Your task to perform on an android device: Search for the best value 4K TV on Best Buy Image 0: 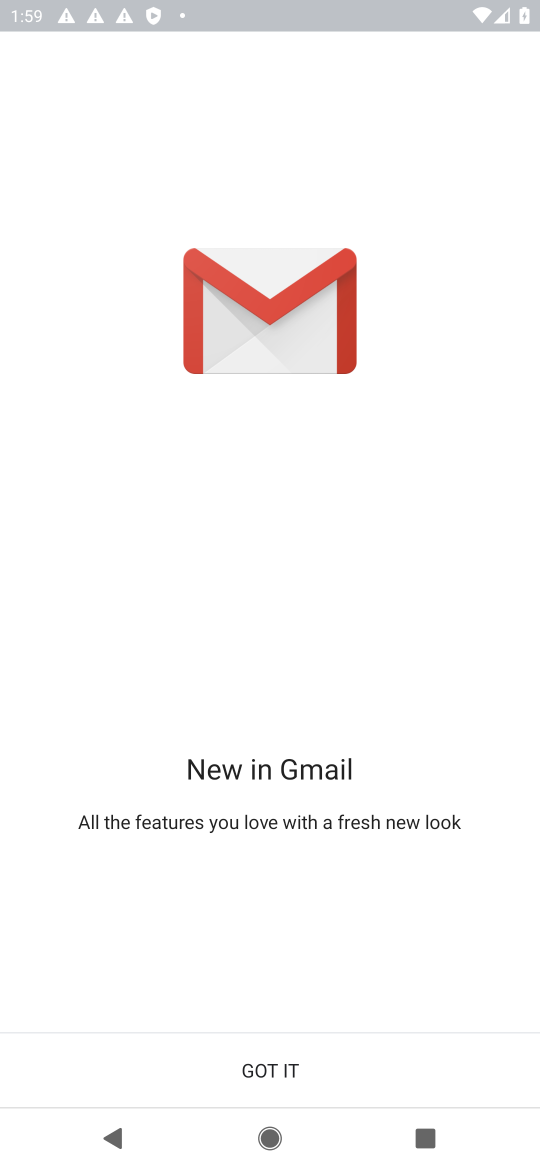
Step 0: click (356, 1056)
Your task to perform on an android device: Search for the best value 4K TV on Best Buy Image 1: 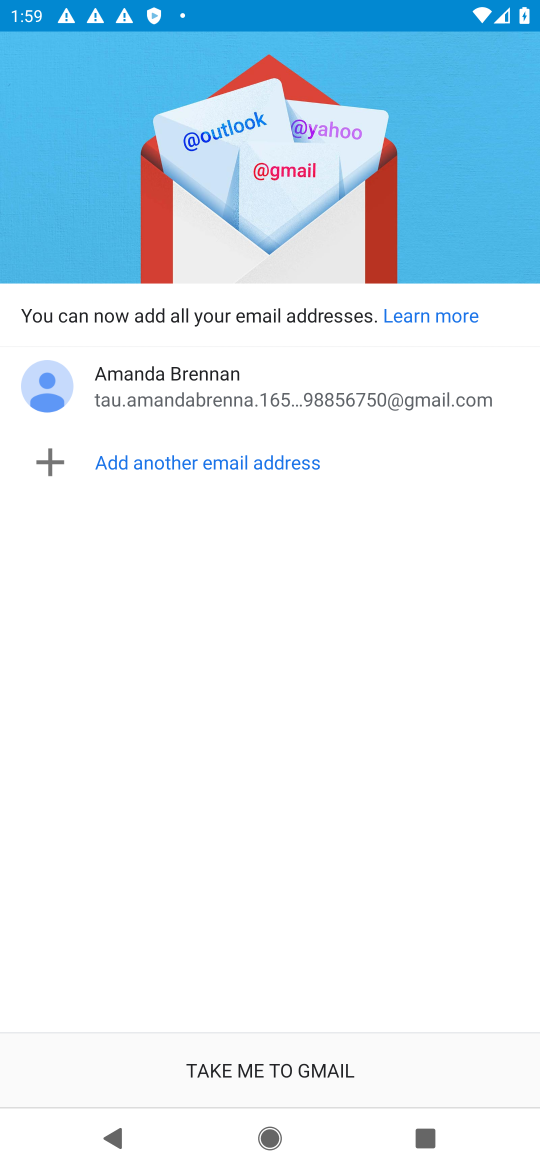
Step 1: press home button
Your task to perform on an android device: Search for the best value 4K TV on Best Buy Image 2: 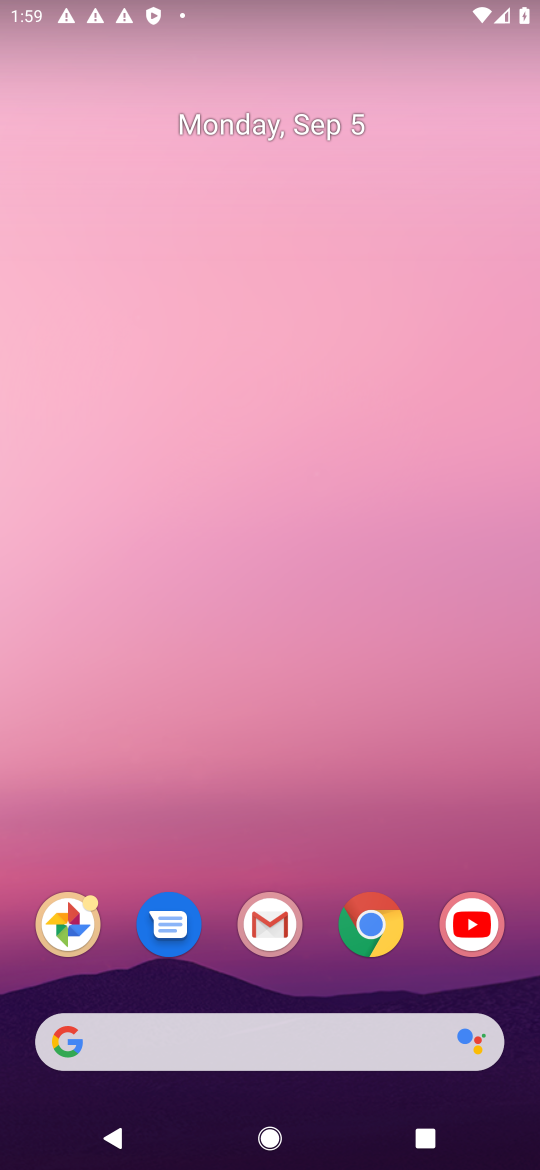
Step 2: click (379, 934)
Your task to perform on an android device: Search for the best value 4K TV on Best Buy Image 3: 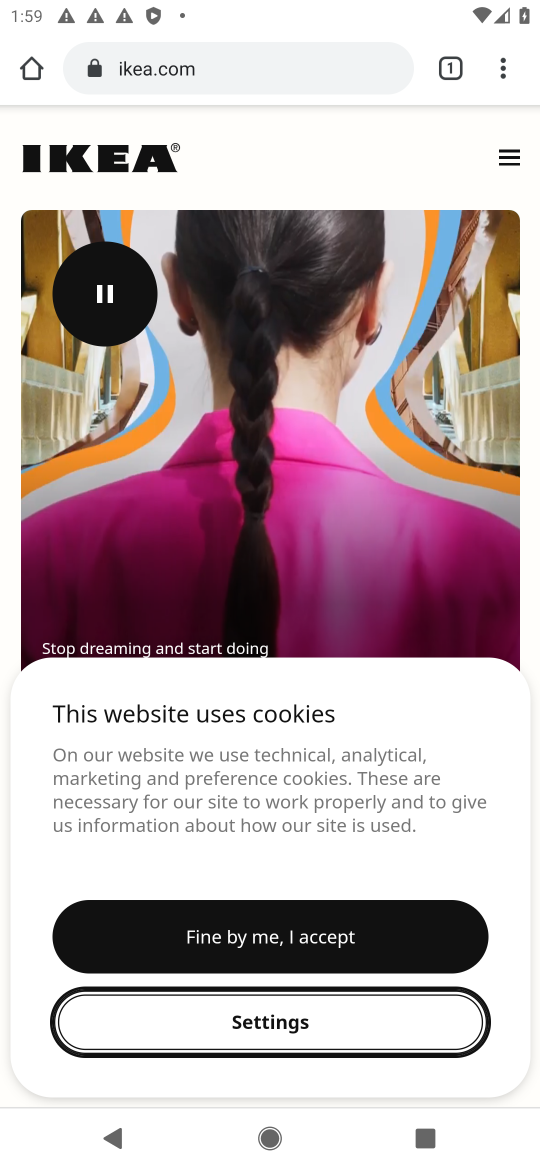
Step 3: click (311, 77)
Your task to perform on an android device: Search for the best value 4K TV on Best Buy Image 4: 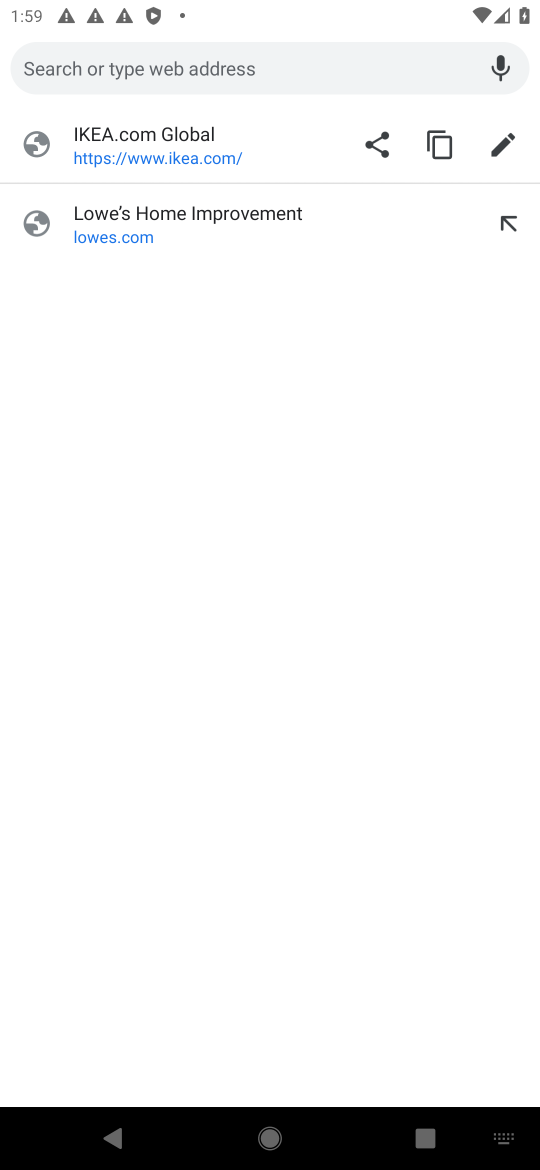
Step 4: type "best buy"
Your task to perform on an android device: Search for the best value 4K TV on Best Buy Image 5: 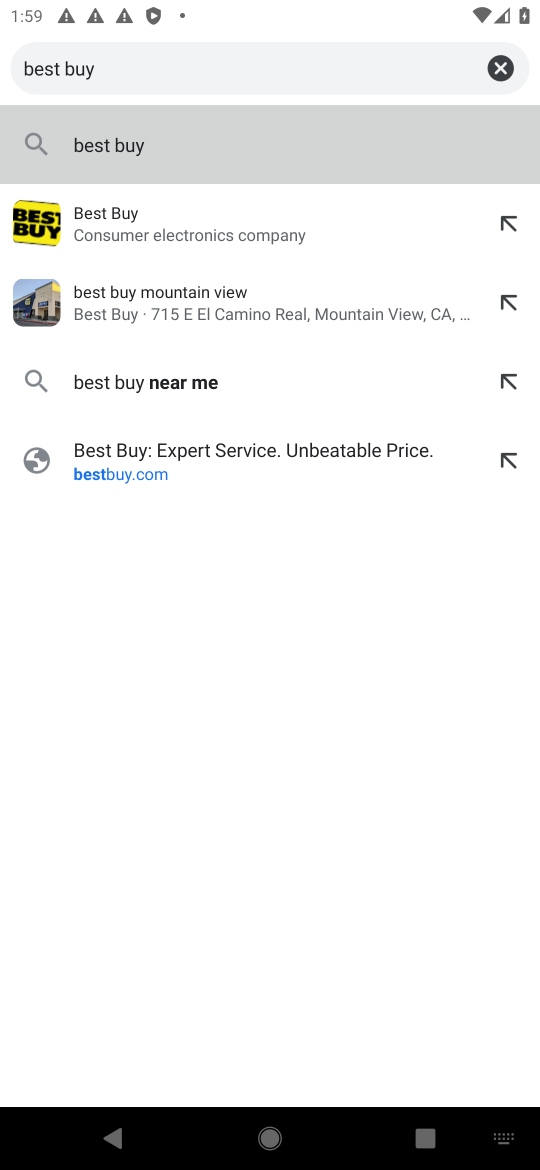
Step 5: click (39, 234)
Your task to perform on an android device: Search for the best value 4K TV on Best Buy Image 6: 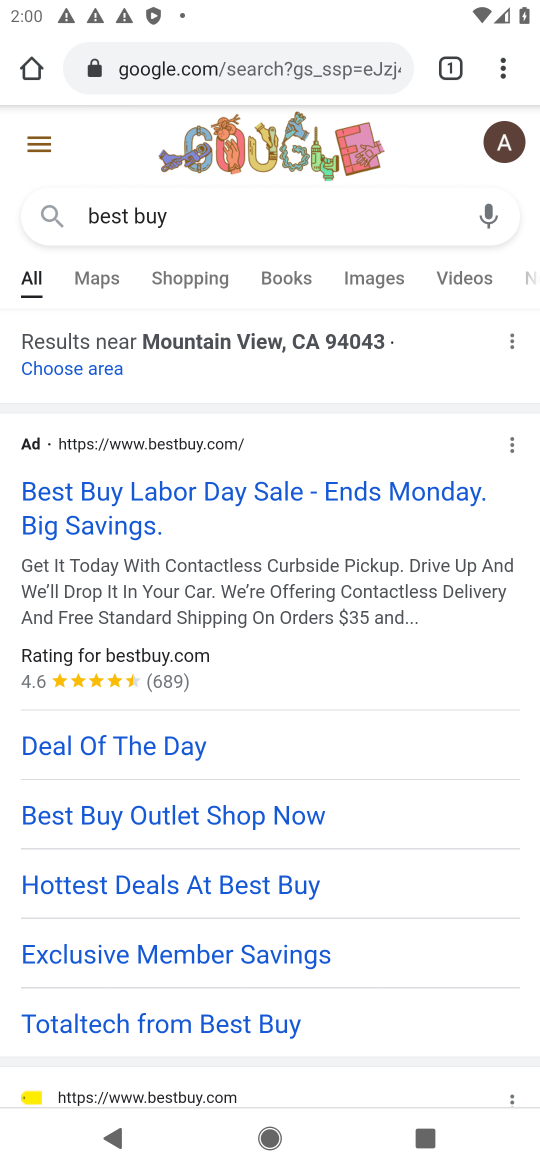
Step 6: click (364, 63)
Your task to perform on an android device: Search for the best value 4K TV on Best Buy Image 7: 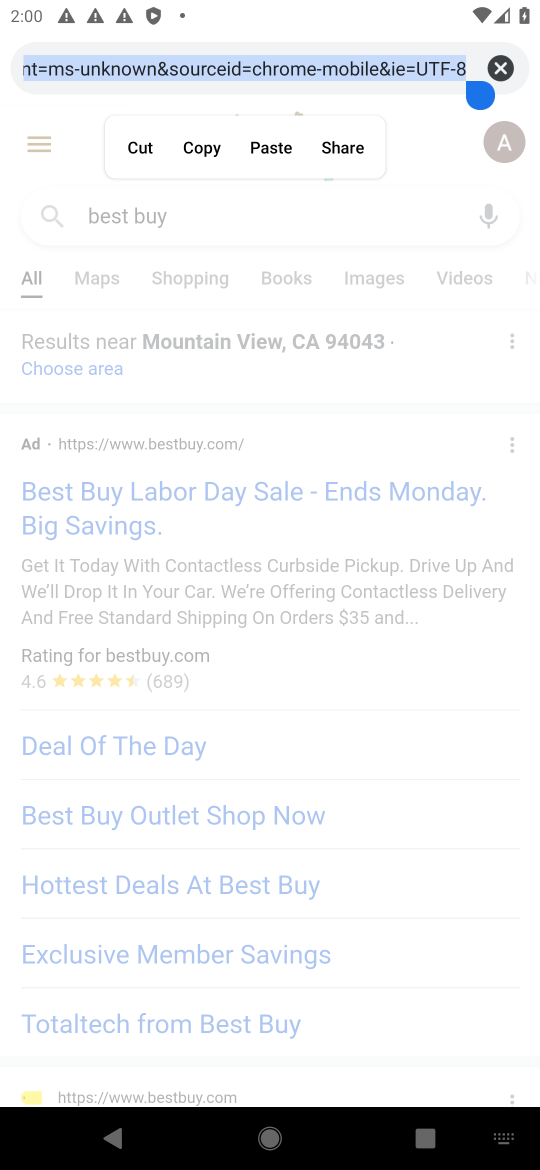
Step 7: type "best buy"
Your task to perform on an android device: Search for the best value 4K TV on Best Buy Image 8: 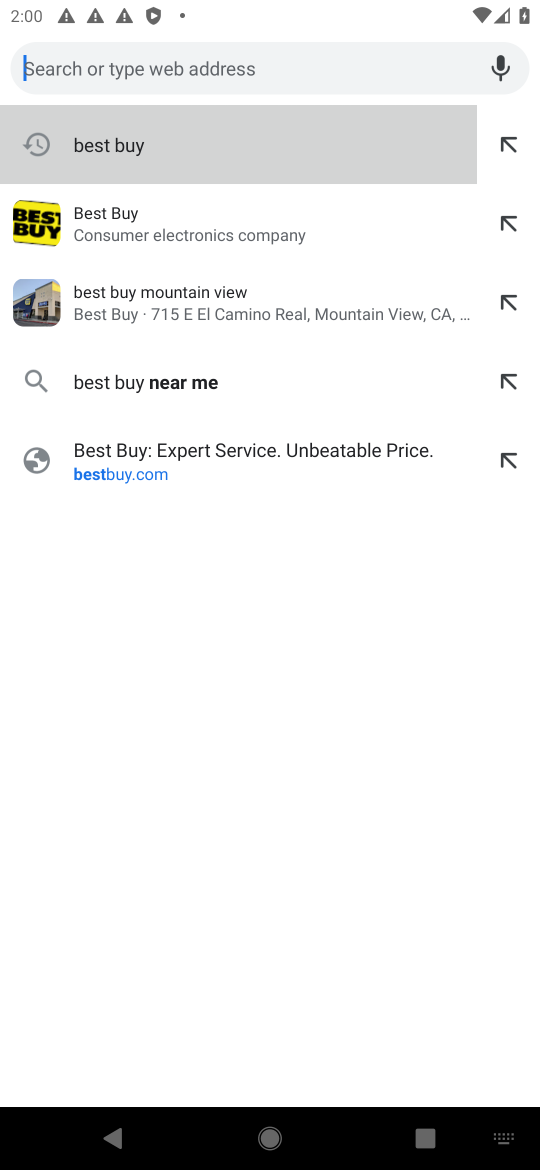
Step 8: click (58, 231)
Your task to perform on an android device: Search for the best value 4K TV on Best Buy Image 9: 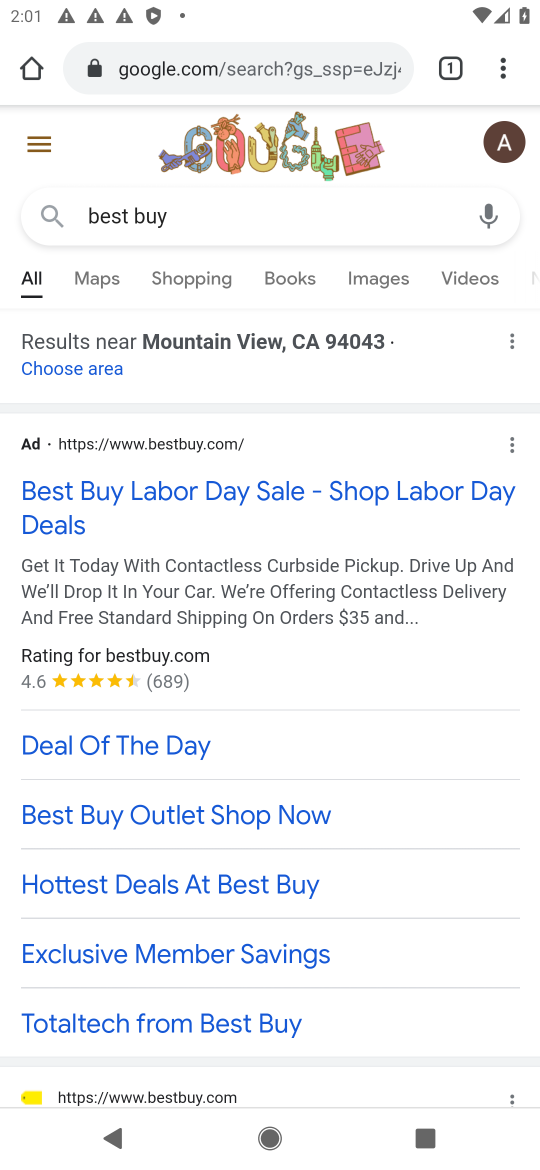
Step 9: click (326, 209)
Your task to perform on an android device: Search for the best value 4K TV on Best Buy Image 10: 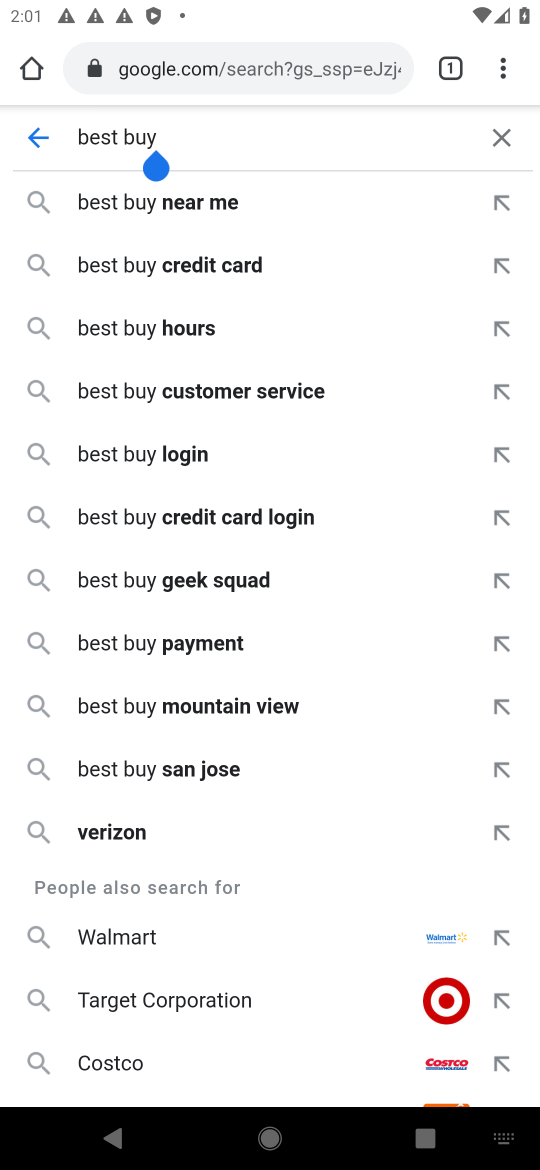
Step 10: press back button
Your task to perform on an android device: Search for the best value 4K TV on Best Buy Image 11: 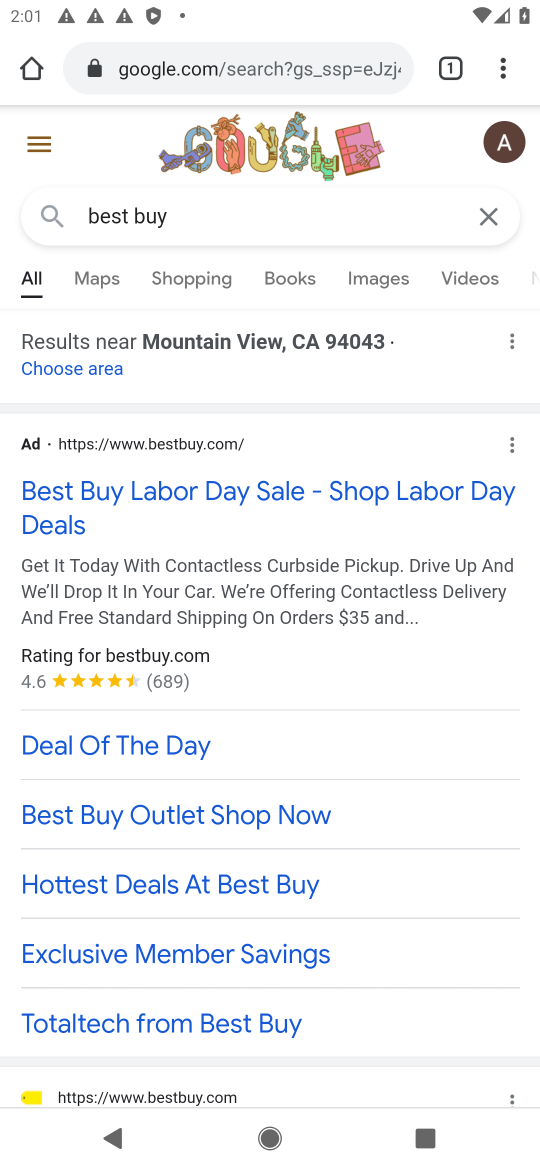
Step 11: drag from (484, 426) to (484, 373)
Your task to perform on an android device: Search for the best value 4K TV on Best Buy Image 12: 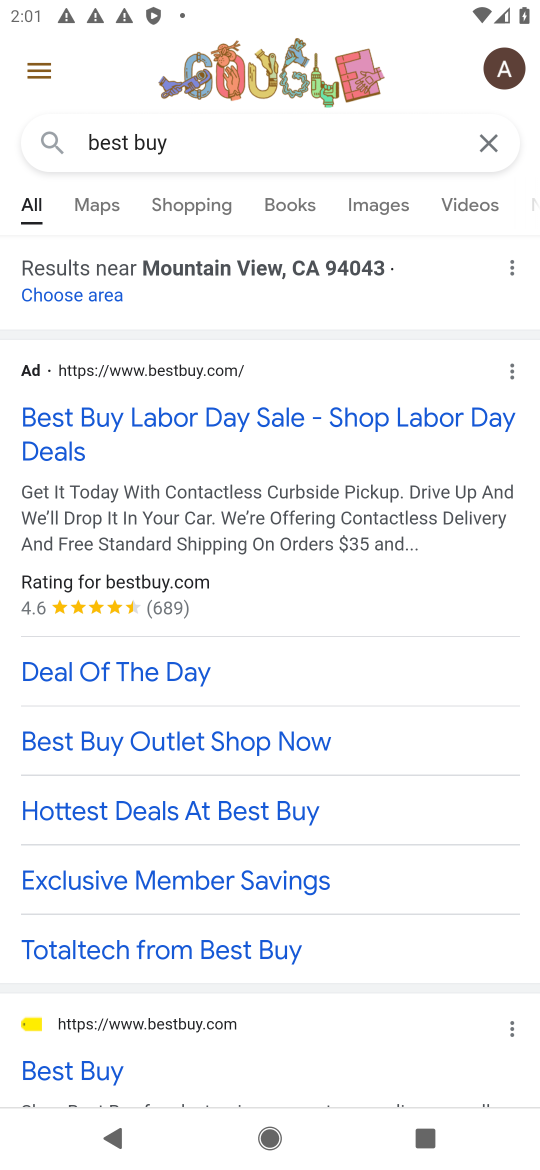
Step 12: drag from (403, 835) to (342, 313)
Your task to perform on an android device: Search for the best value 4K TV on Best Buy Image 13: 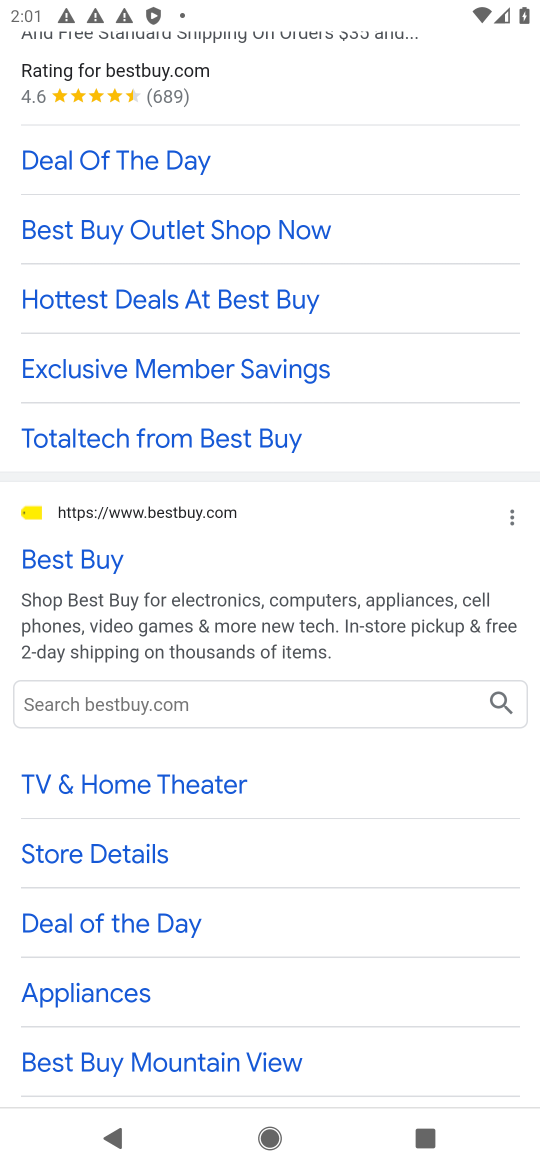
Step 13: click (63, 568)
Your task to perform on an android device: Search for the best value 4K TV on Best Buy Image 14: 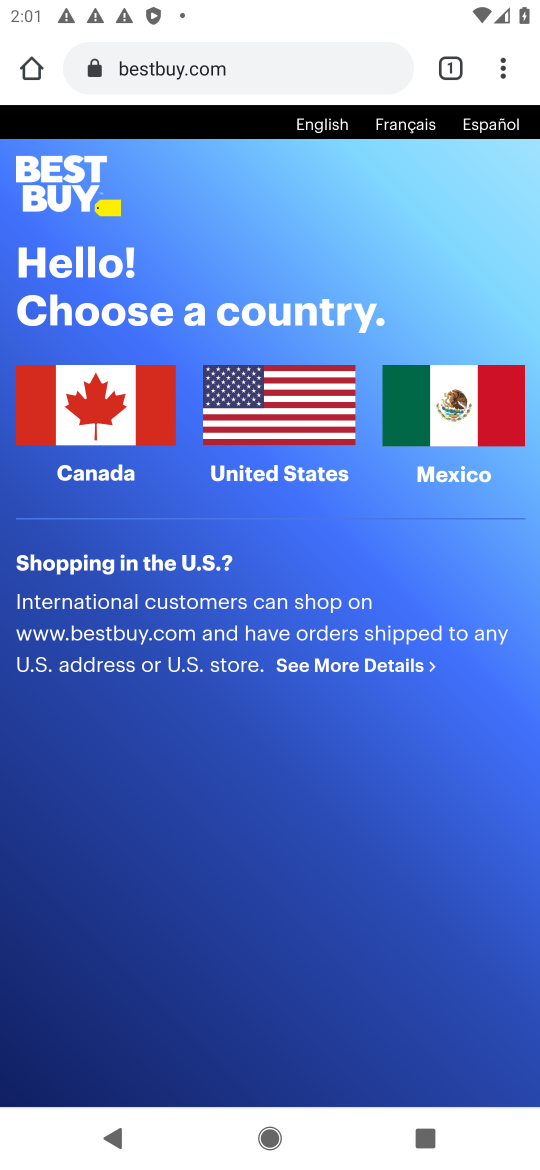
Step 14: click (331, 407)
Your task to perform on an android device: Search for the best value 4K TV on Best Buy Image 15: 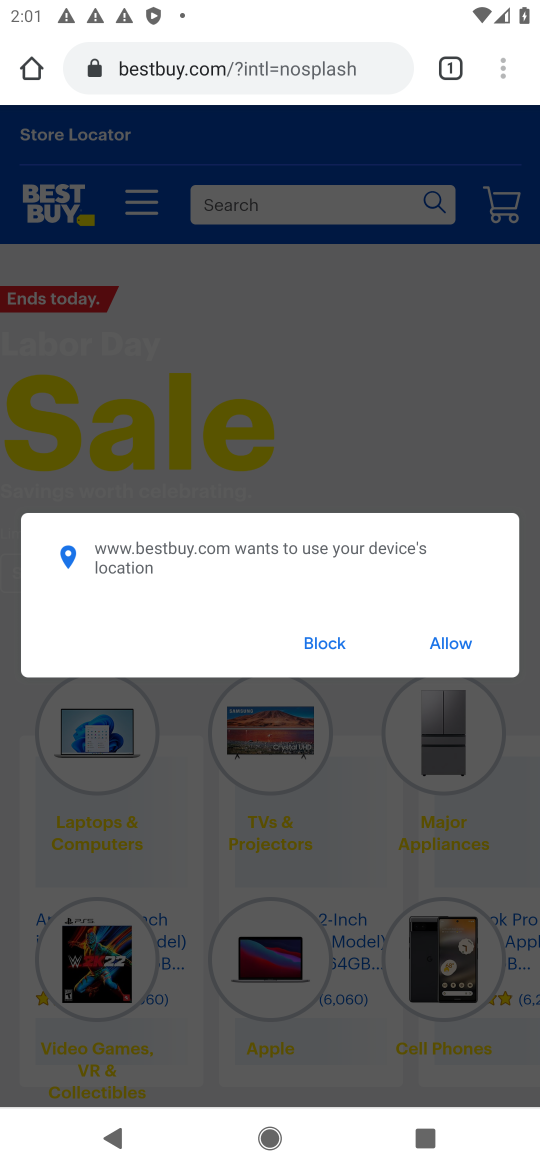
Step 15: click (456, 644)
Your task to perform on an android device: Search for the best value 4K TV on Best Buy Image 16: 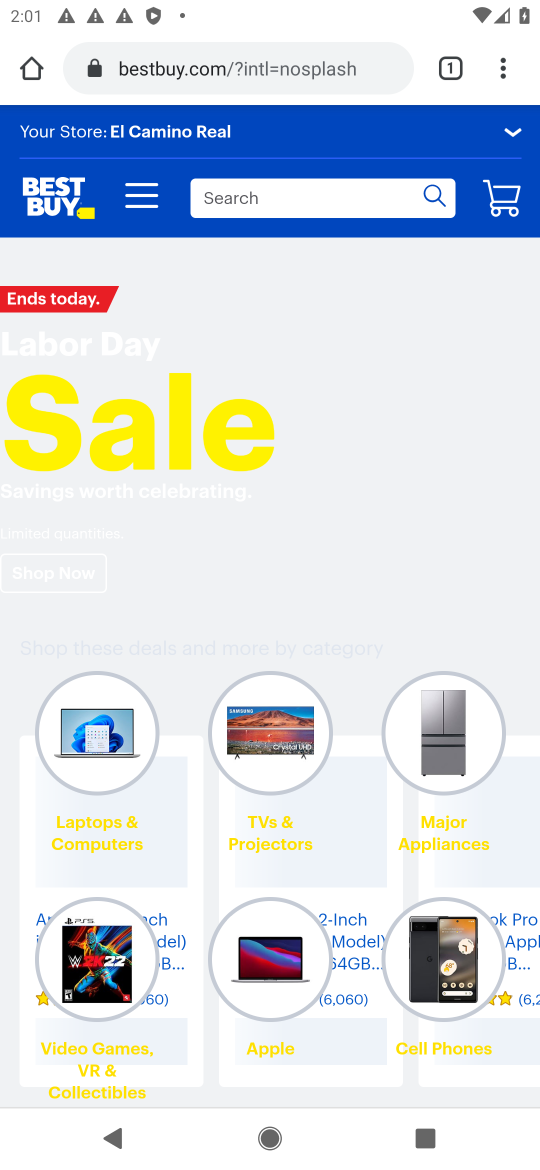
Step 16: click (402, 199)
Your task to perform on an android device: Search for the best value 4K TV on Best Buy Image 17: 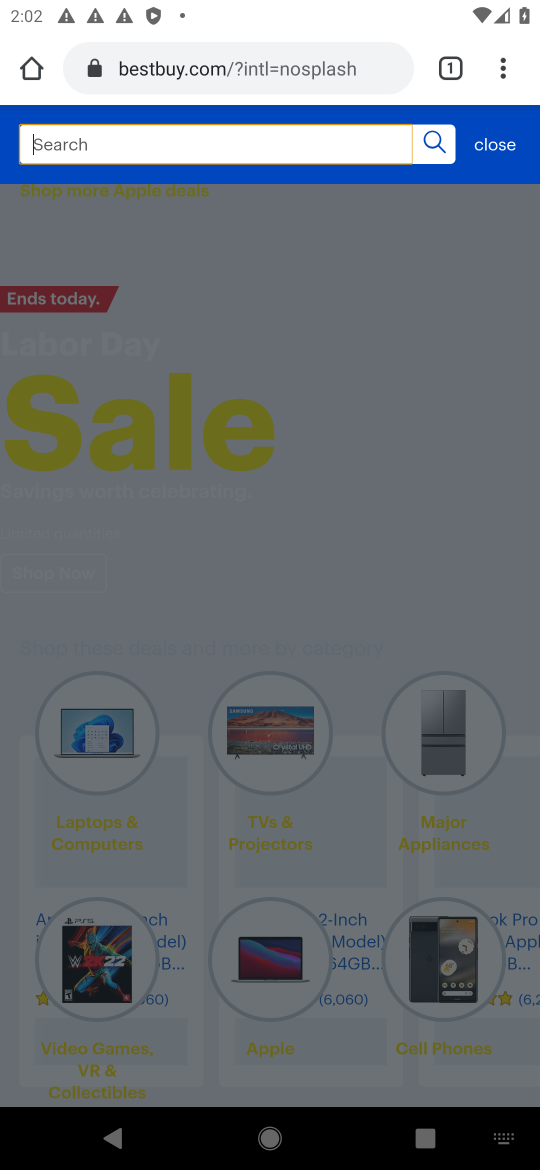
Step 17: type "best value 4k TV"
Your task to perform on an android device: Search for the best value 4K TV on Best Buy Image 18: 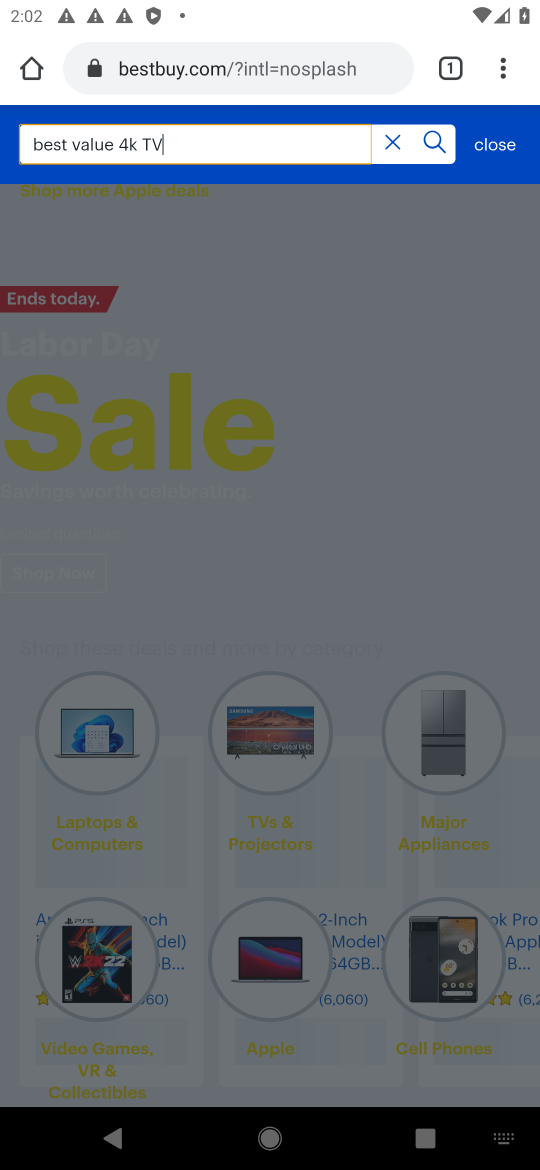
Step 18: click (434, 137)
Your task to perform on an android device: Search for the best value 4K TV on Best Buy Image 19: 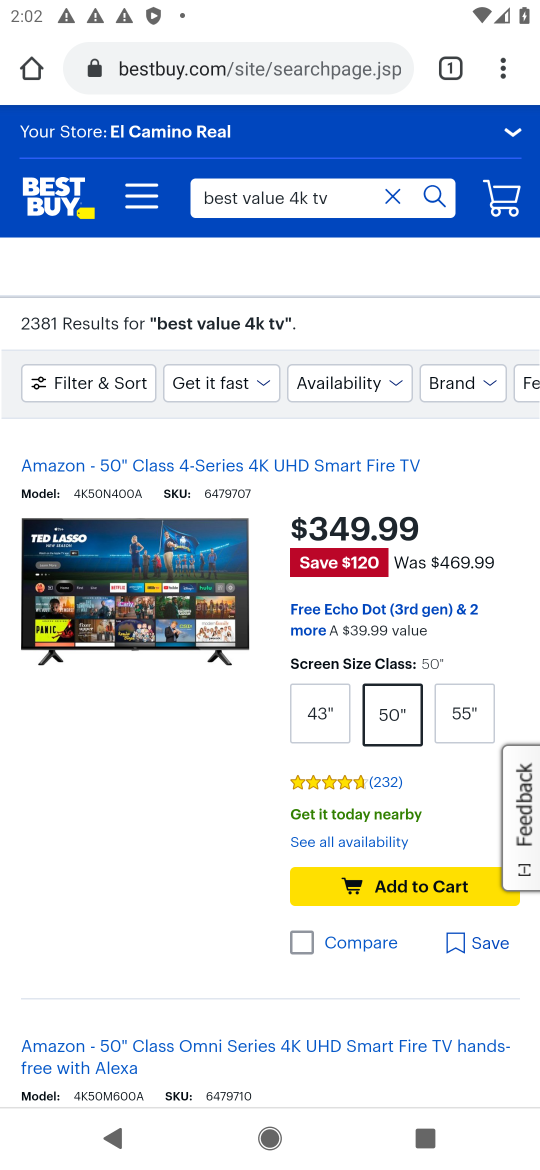
Step 19: task complete